Your task to perform on an android device: Open accessibility settings Image 0: 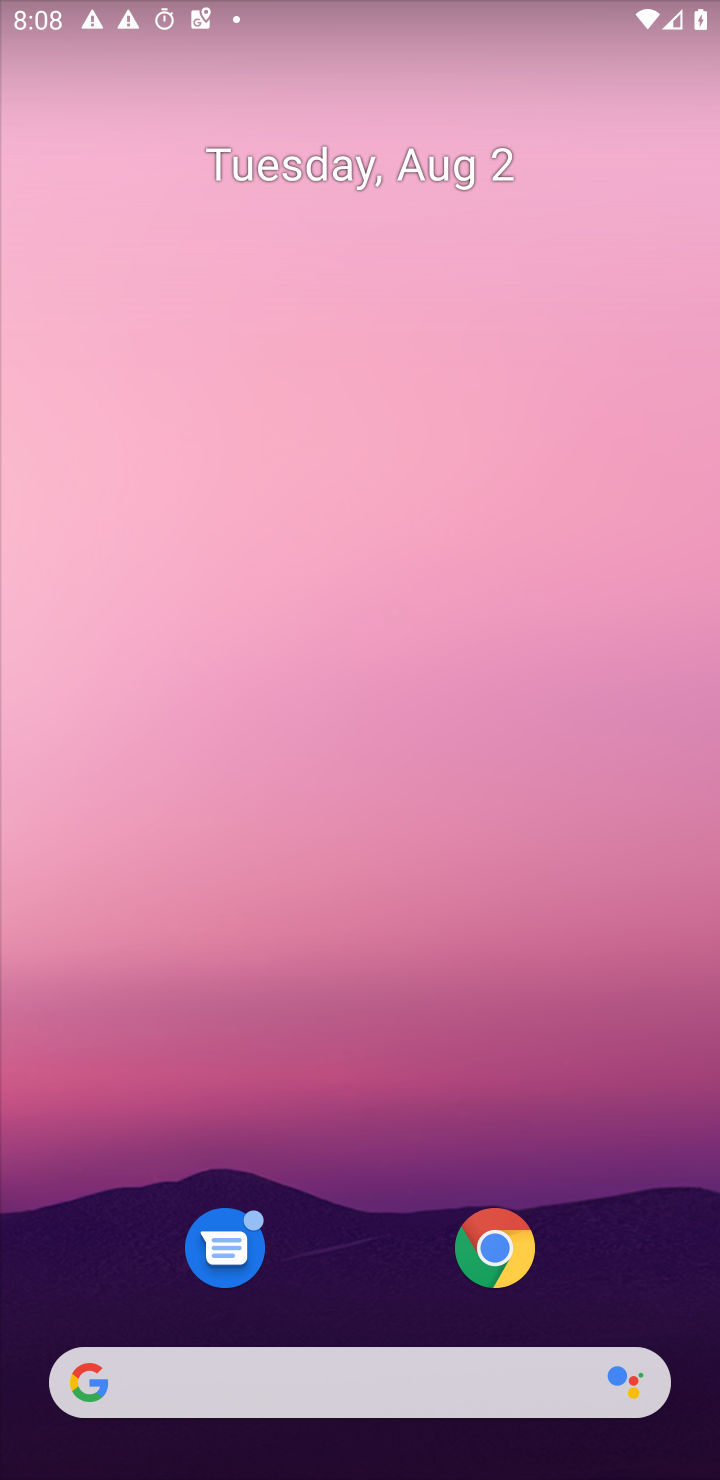
Step 0: click (543, 464)
Your task to perform on an android device: Open accessibility settings Image 1: 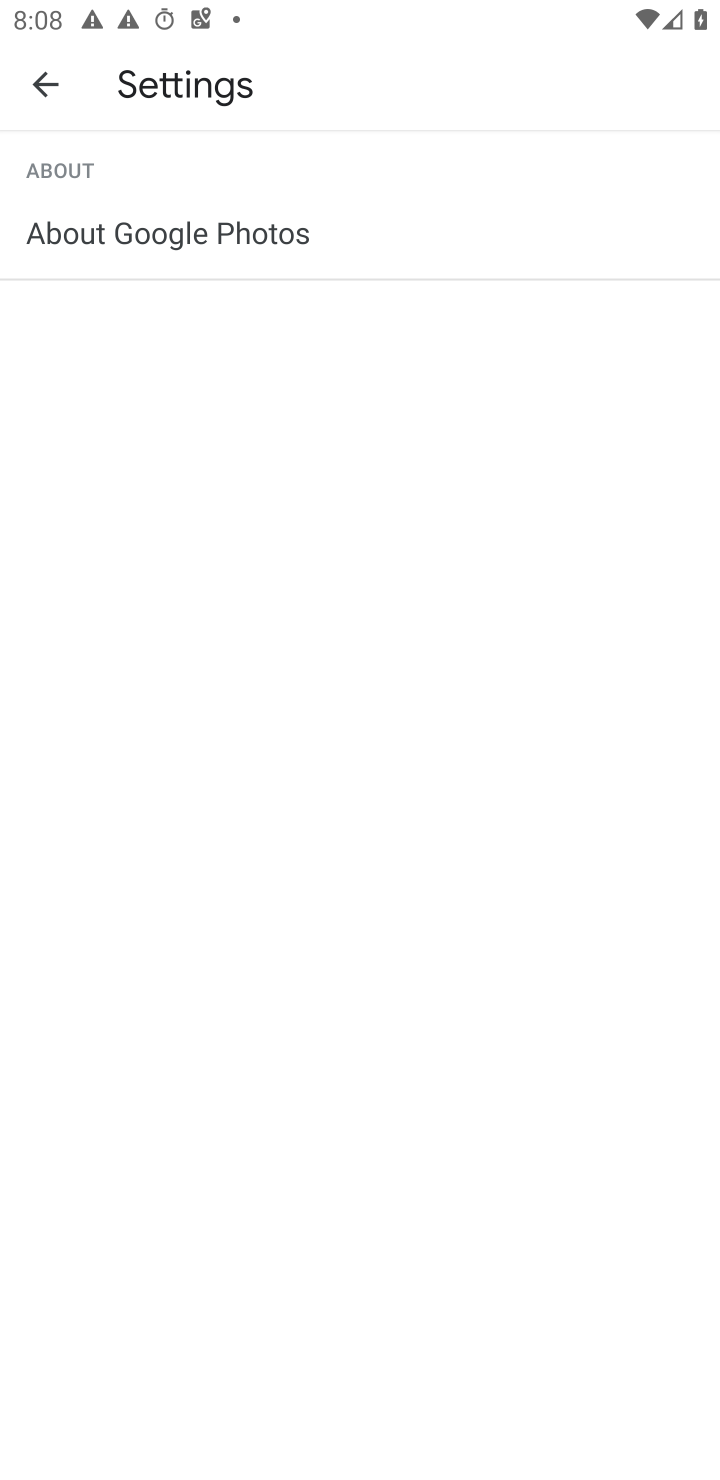
Step 1: drag from (270, 963) to (456, 551)
Your task to perform on an android device: Open accessibility settings Image 2: 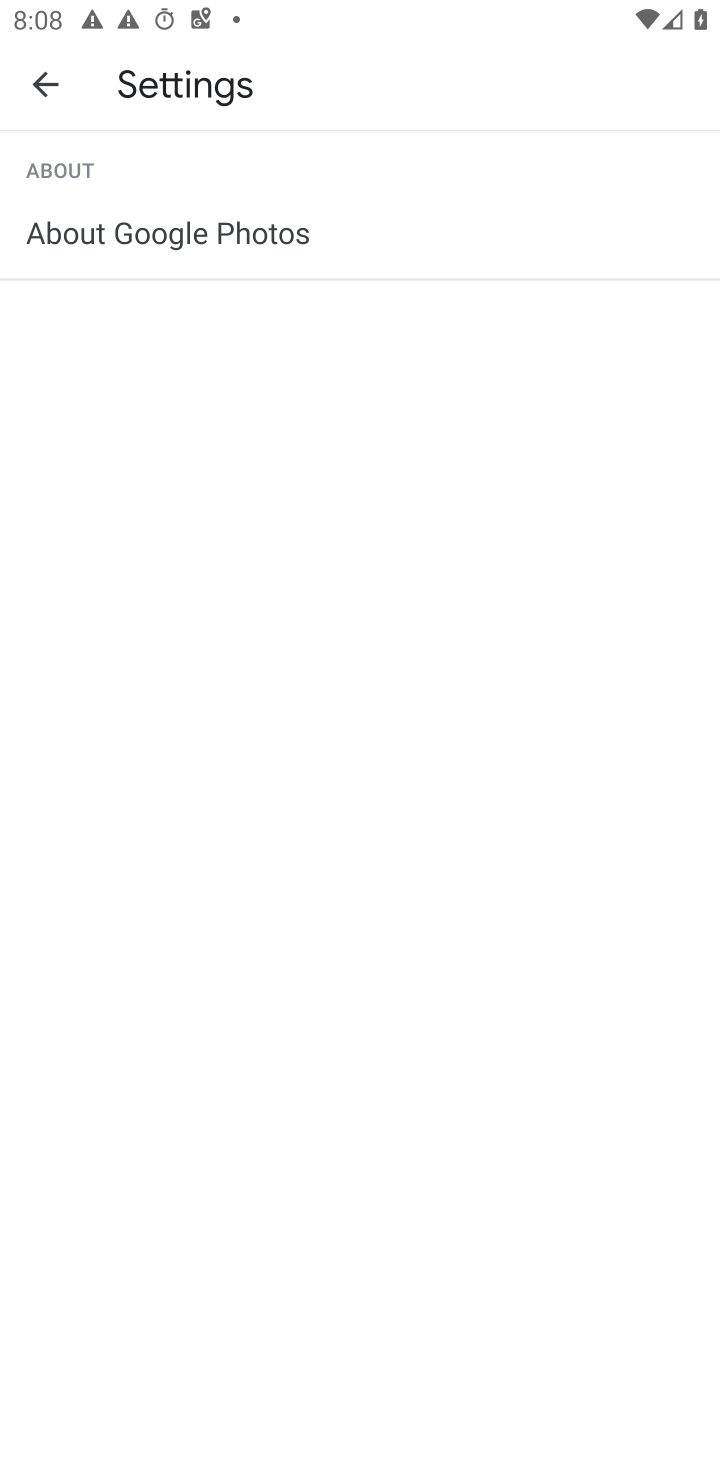
Step 2: drag from (348, 807) to (443, 282)
Your task to perform on an android device: Open accessibility settings Image 3: 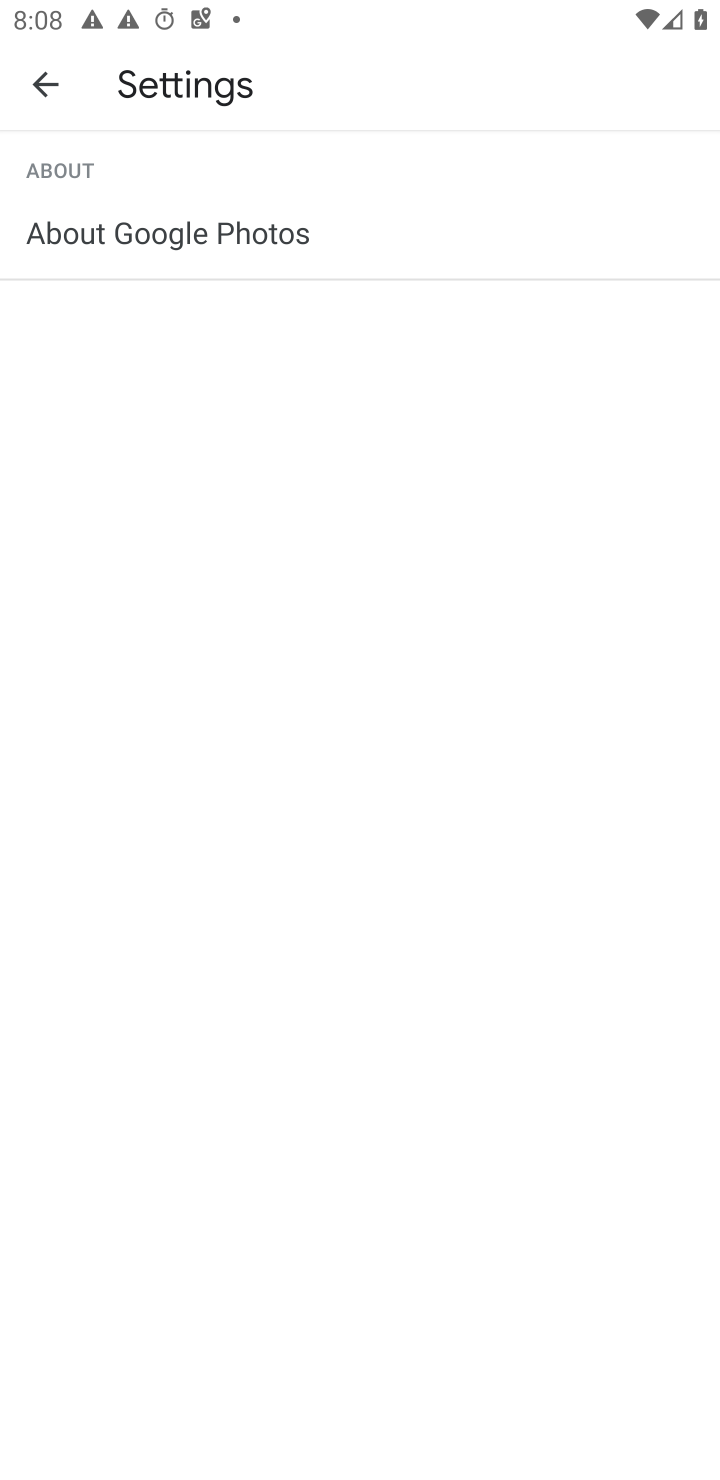
Step 3: drag from (388, 1099) to (453, 531)
Your task to perform on an android device: Open accessibility settings Image 4: 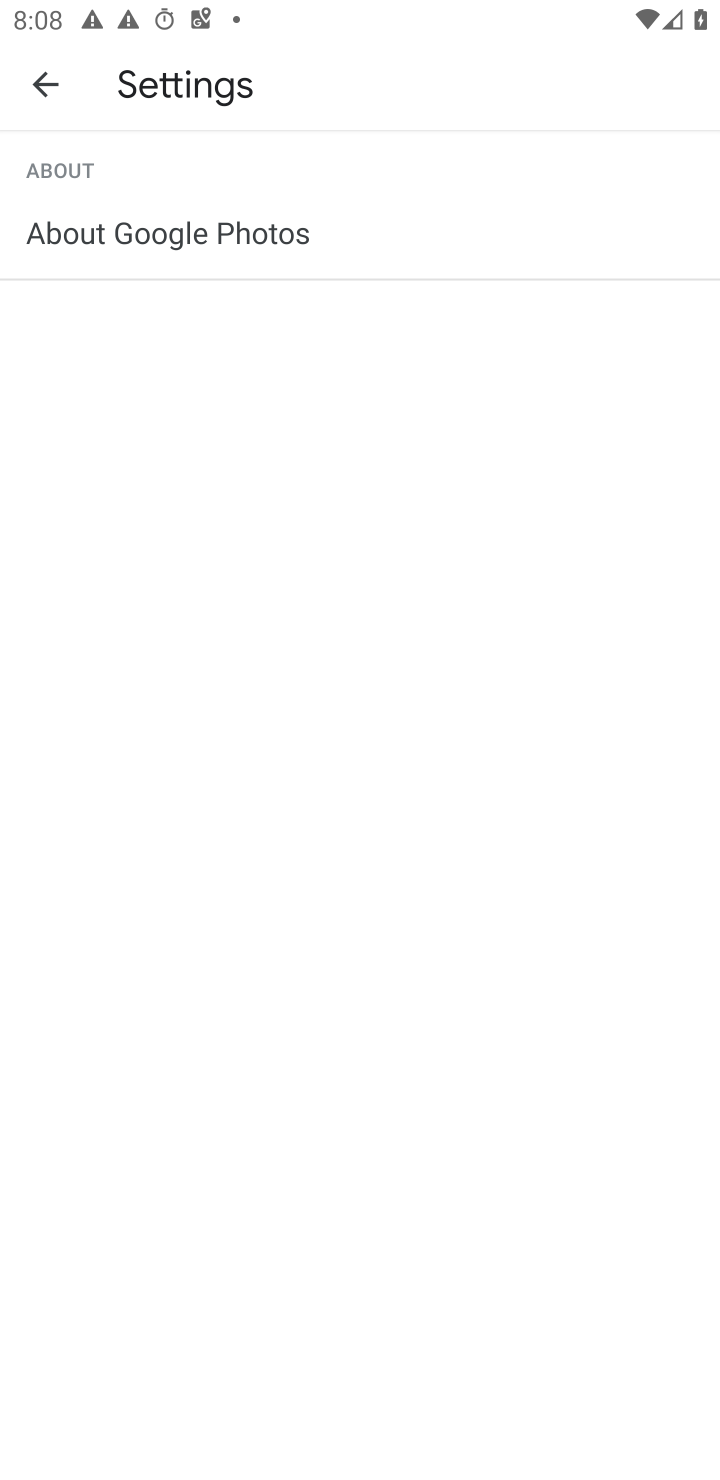
Step 4: drag from (380, 930) to (477, 578)
Your task to perform on an android device: Open accessibility settings Image 5: 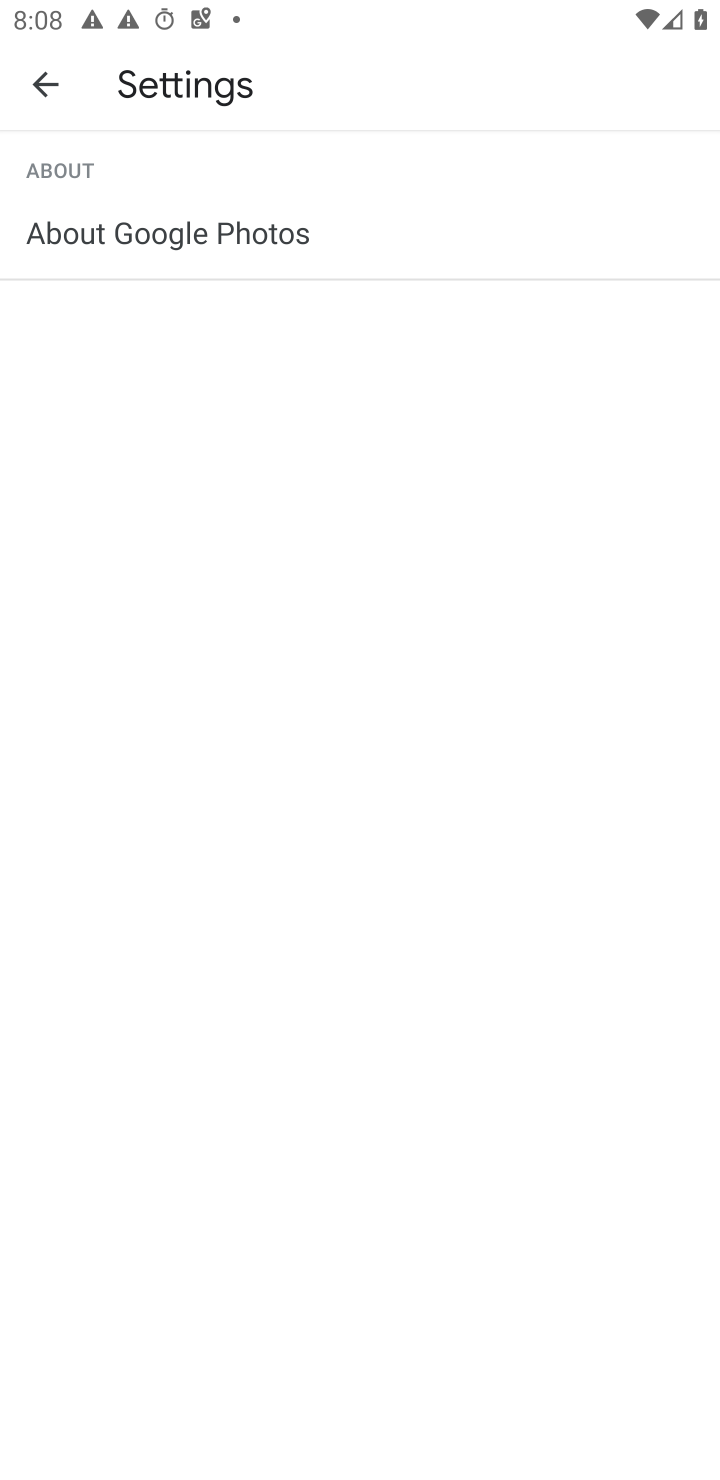
Step 5: drag from (348, 1125) to (487, 589)
Your task to perform on an android device: Open accessibility settings Image 6: 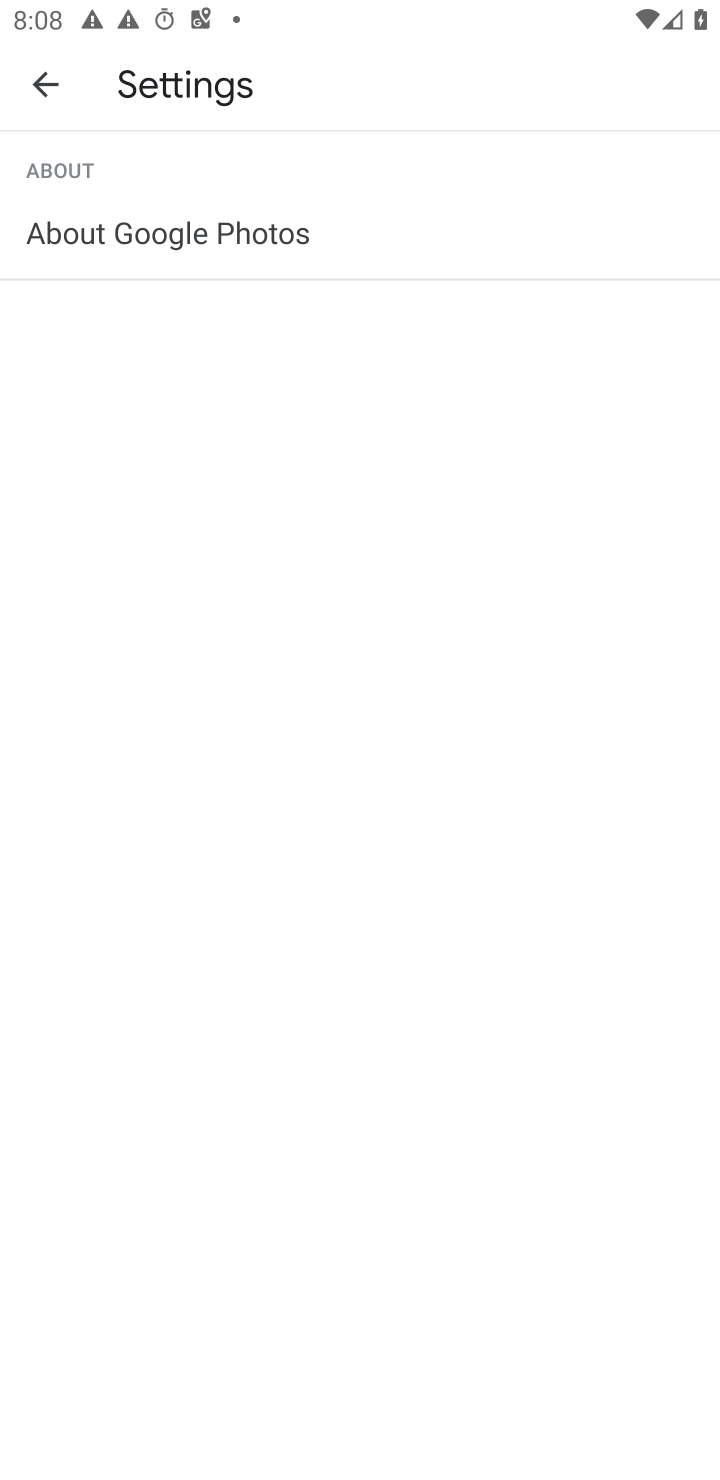
Step 6: drag from (366, 940) to (453, 595)
Your task to perform on an android device: Open accessibility settings Image 7: 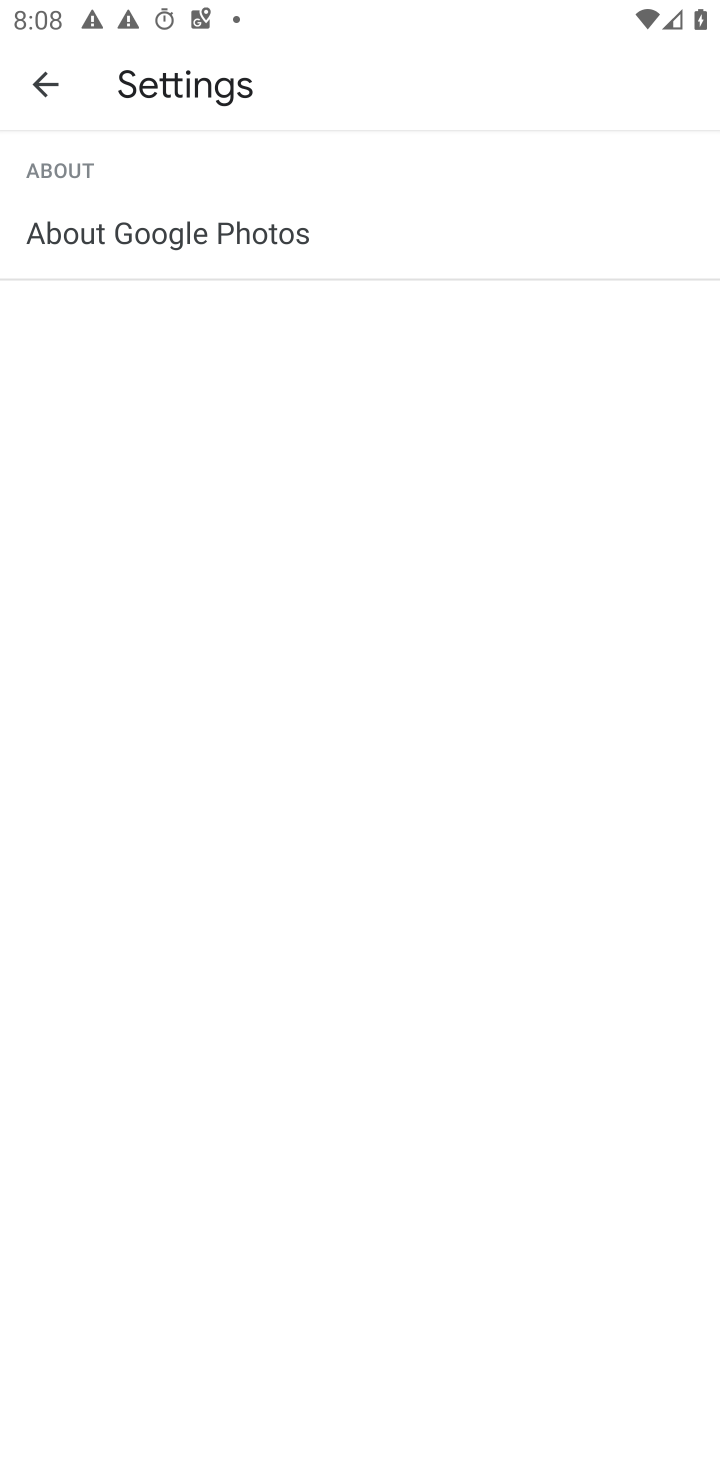
Step 7: press home button
Your task to perform on an android device: Open accessibility settings Image 8: 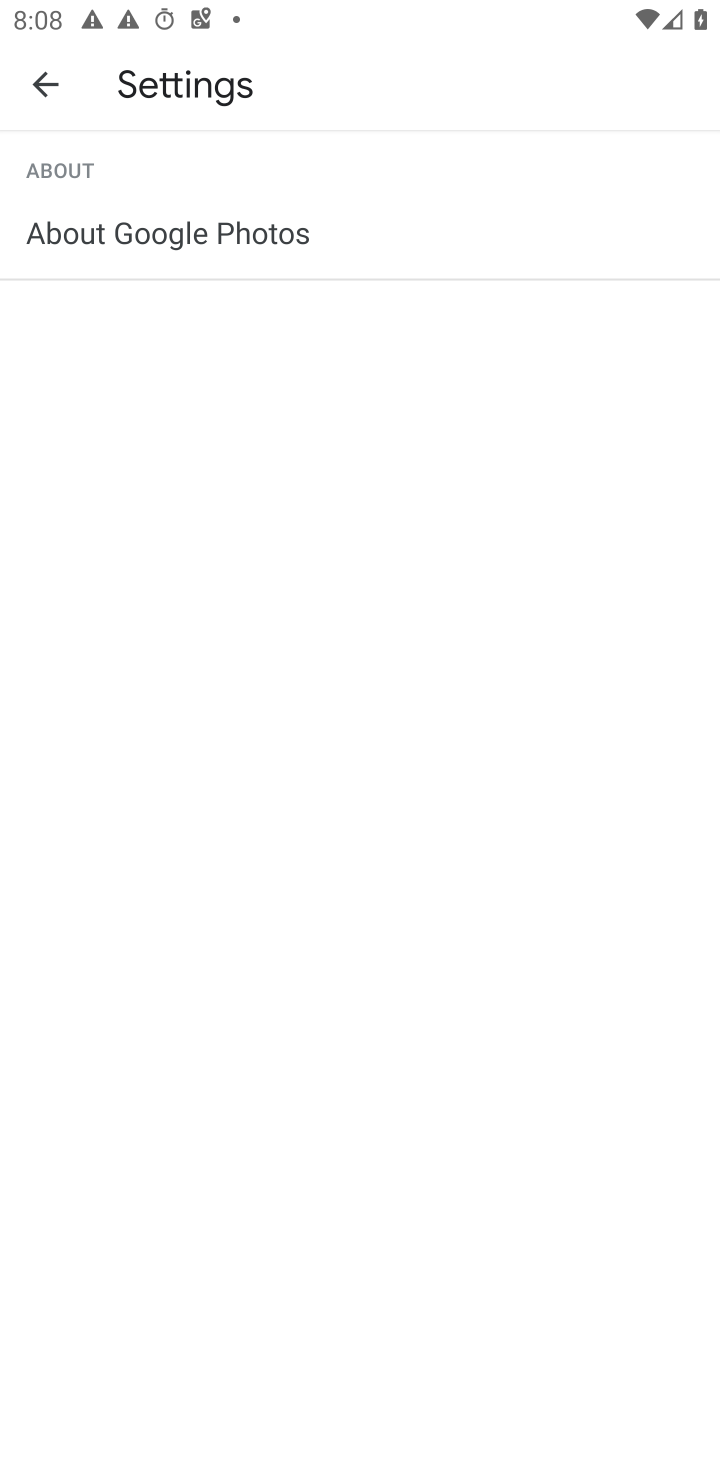
Step 8: press home button
Your task to perform on an android device: Open accessibility settings Image 9: 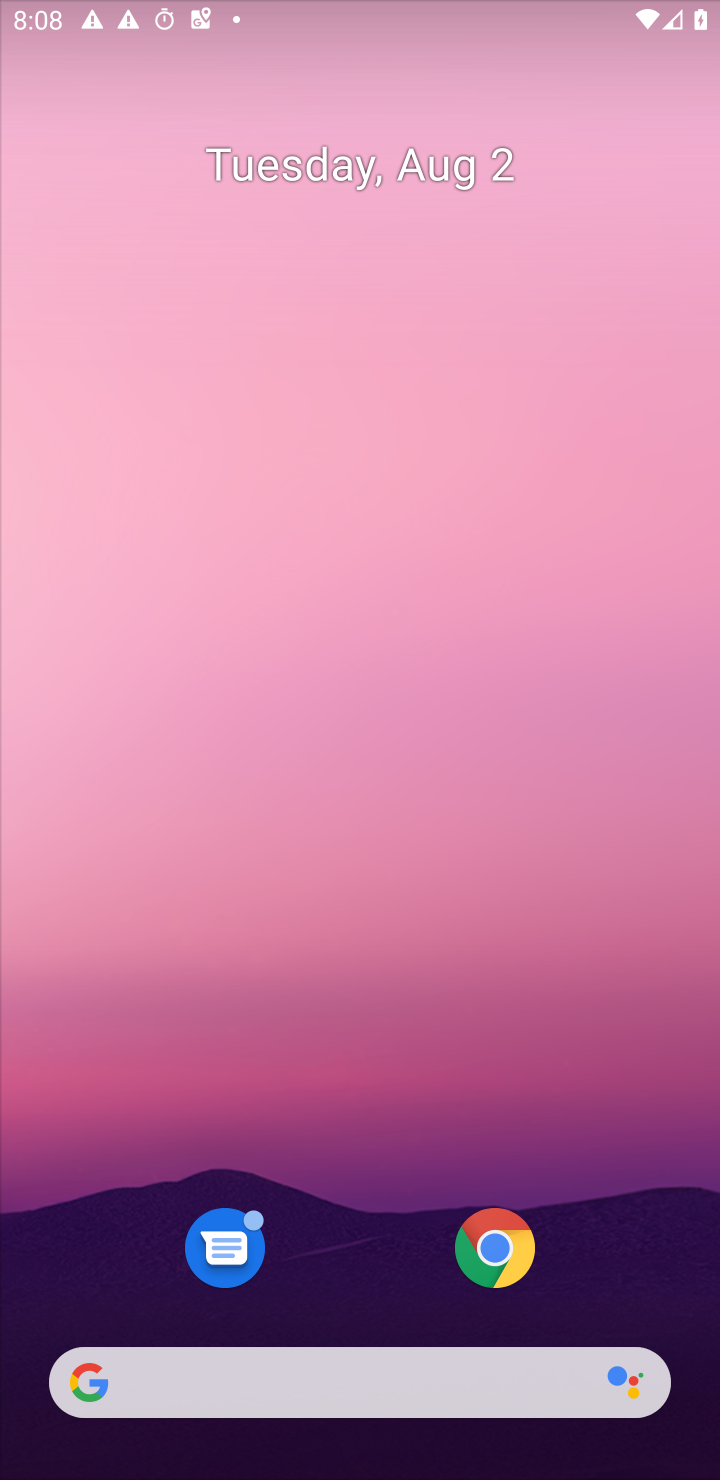
Step 9: press home button
Your task to perform on an android device: Open accessibility settings Image 10: 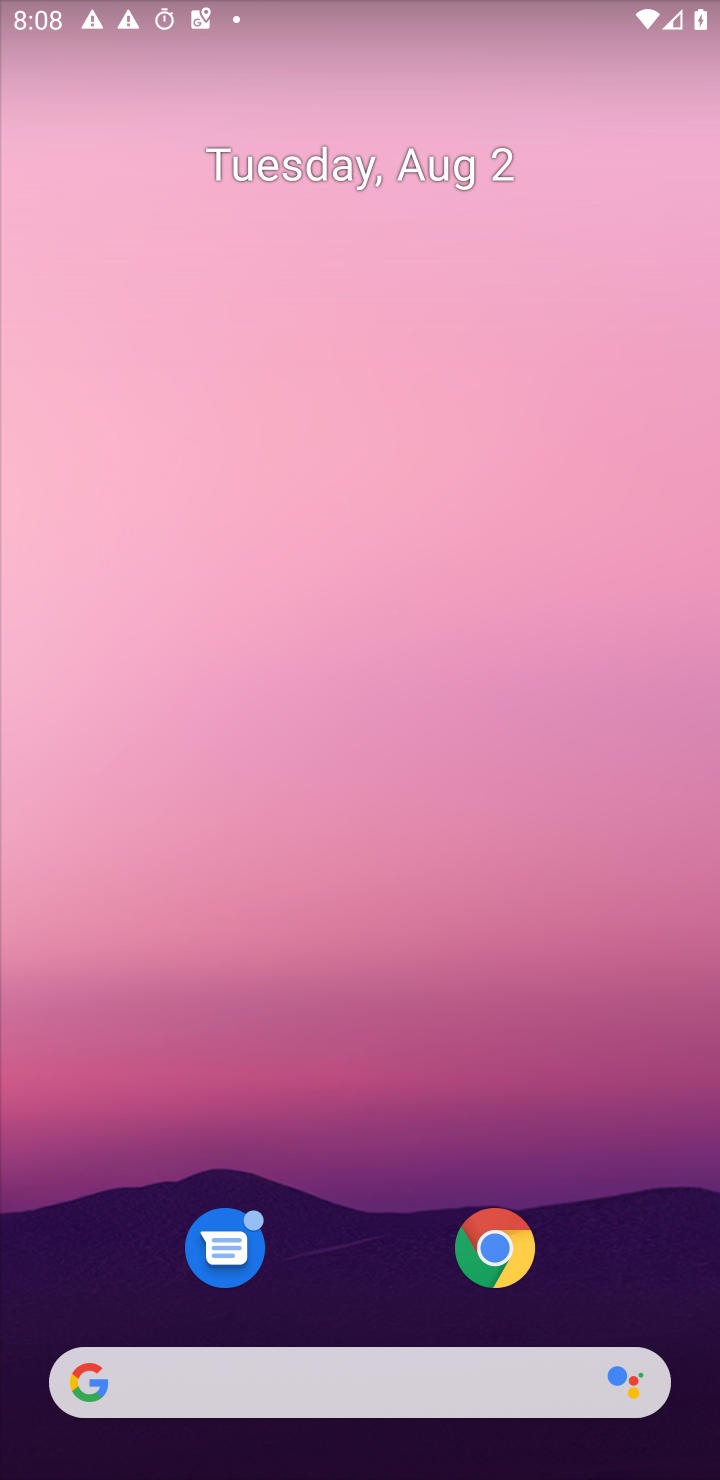
Step 10: drag from (400, 1036) to (556, 379)
Your task to perform on an android device: Open accessibility settings Image 11: 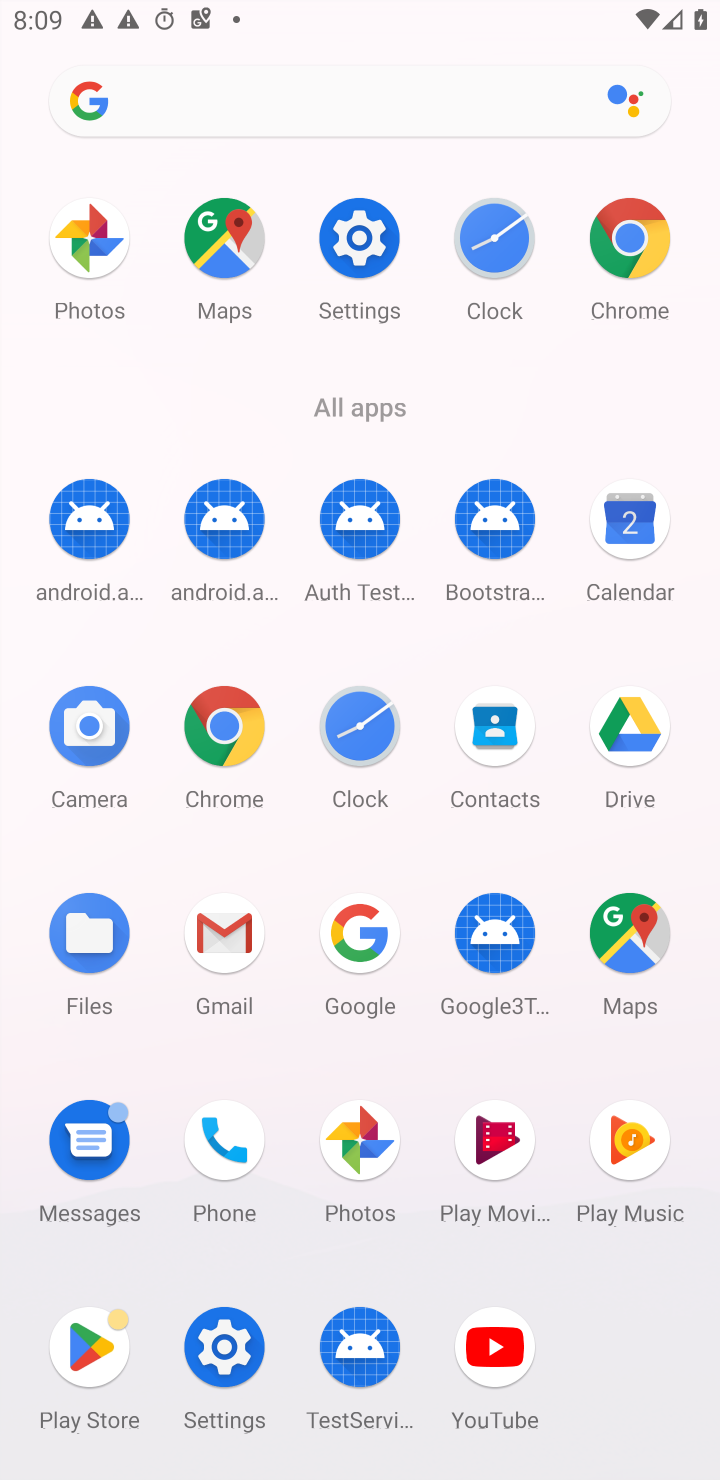
Step 11: click (206, 1331)
Your task to perform on an android device: Open accessibility settings Image 12: 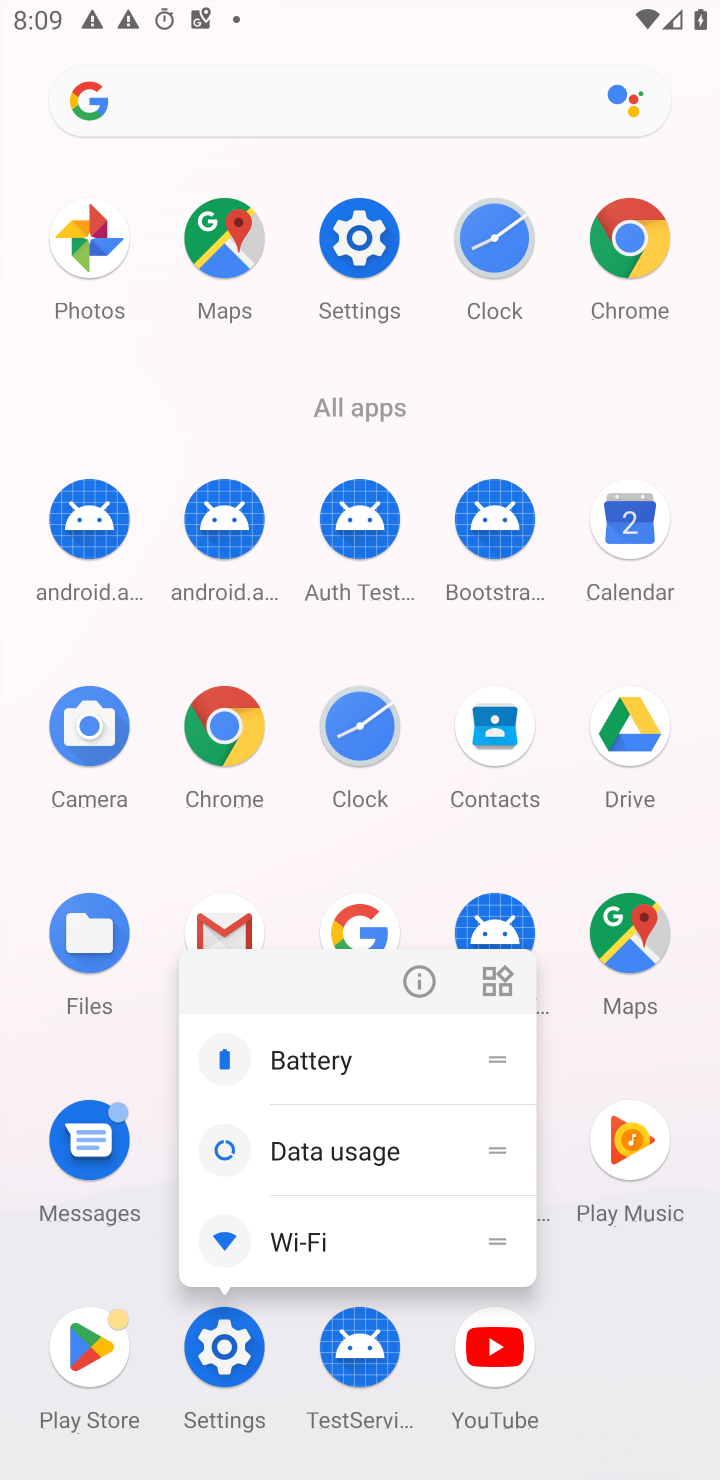
Step 12: click (415, 985)
Your task to perform on an android device: Open accessibility settings Image 13: 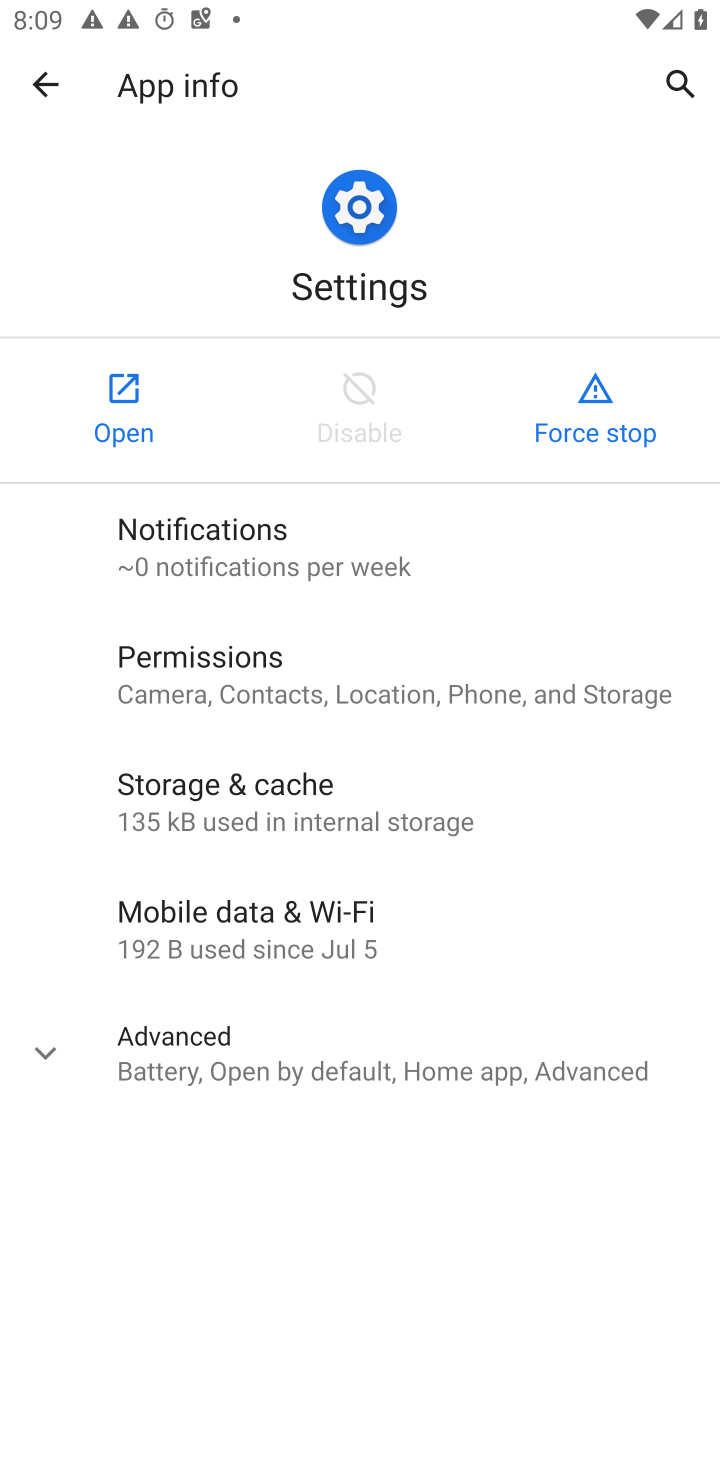
Step 13: click (120, 379)
Your task to perform on an android device: Open accessibility settings Image 14: 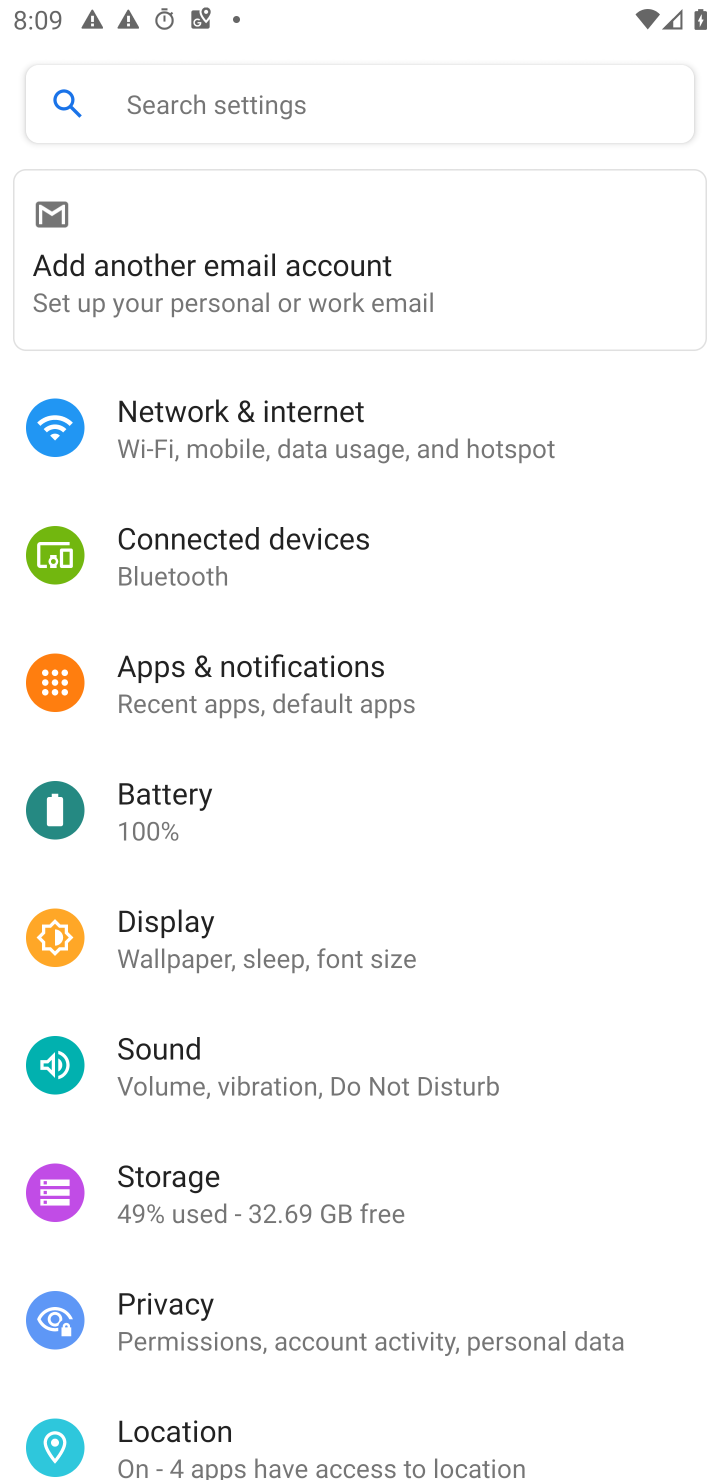
Step 14: drag from (197, 1365) to (301, 657)
Your task to perform on an android device: Open accessibility settings Image 15: 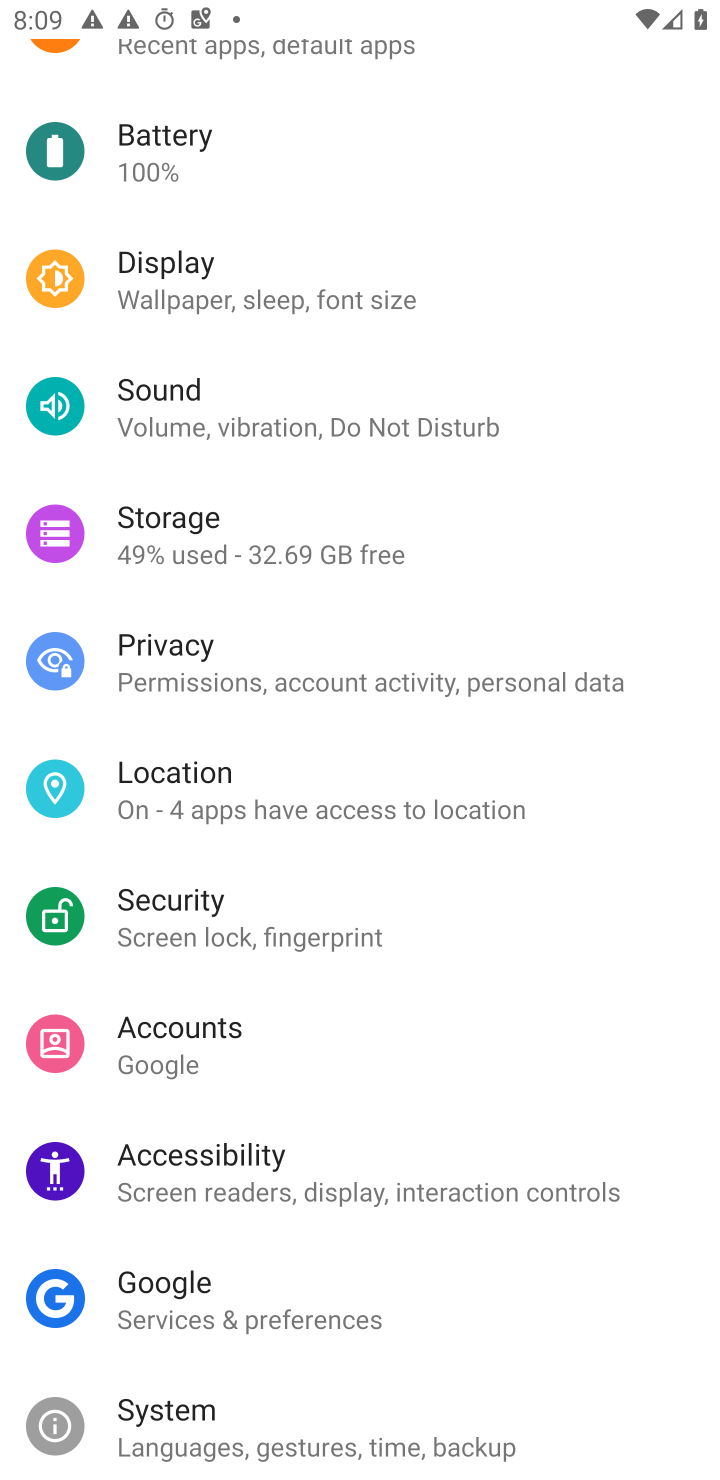
Step 15: click (312, 1182)
Your task to perform on an android device: Open accessibility settings Image 16: 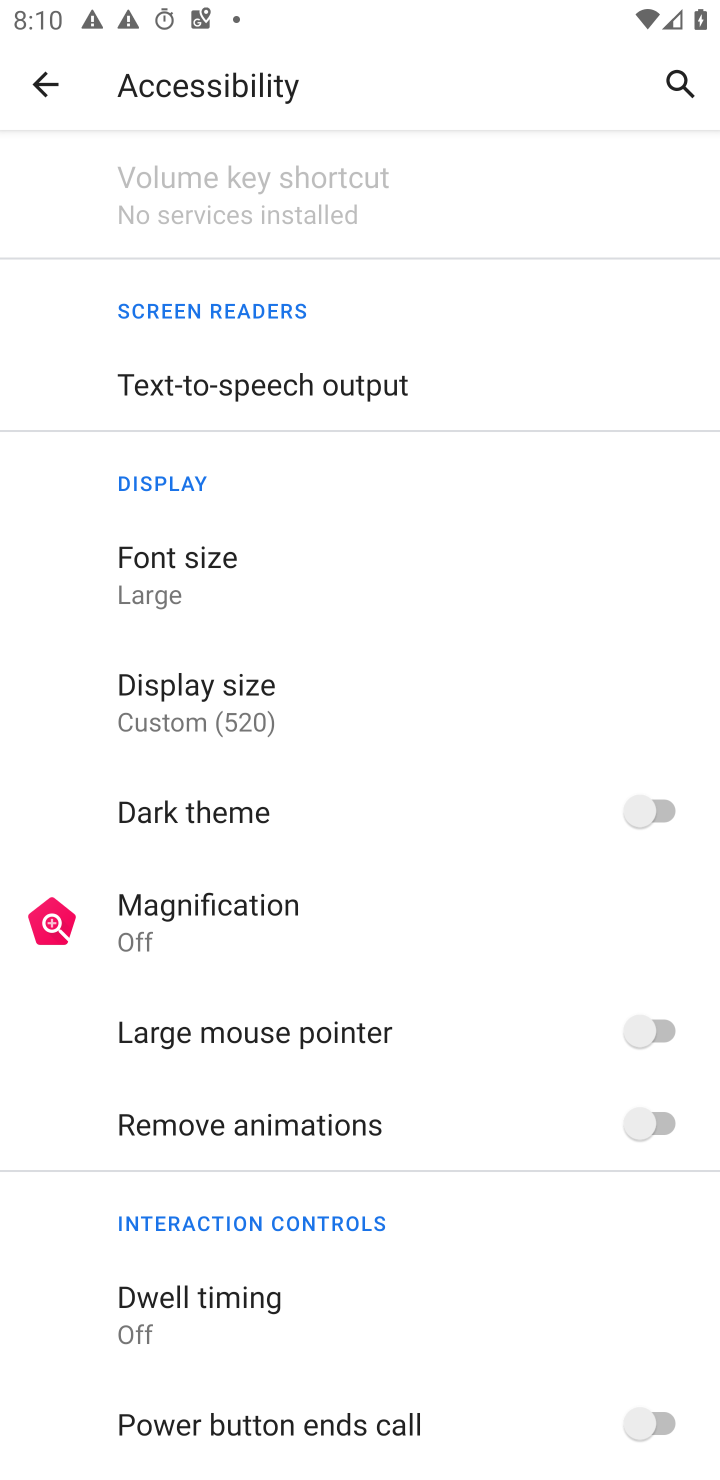
Step 16: task complete